Your task to perform on an android device: uninstall "Spotify: Music and Podcasts" Image 0: 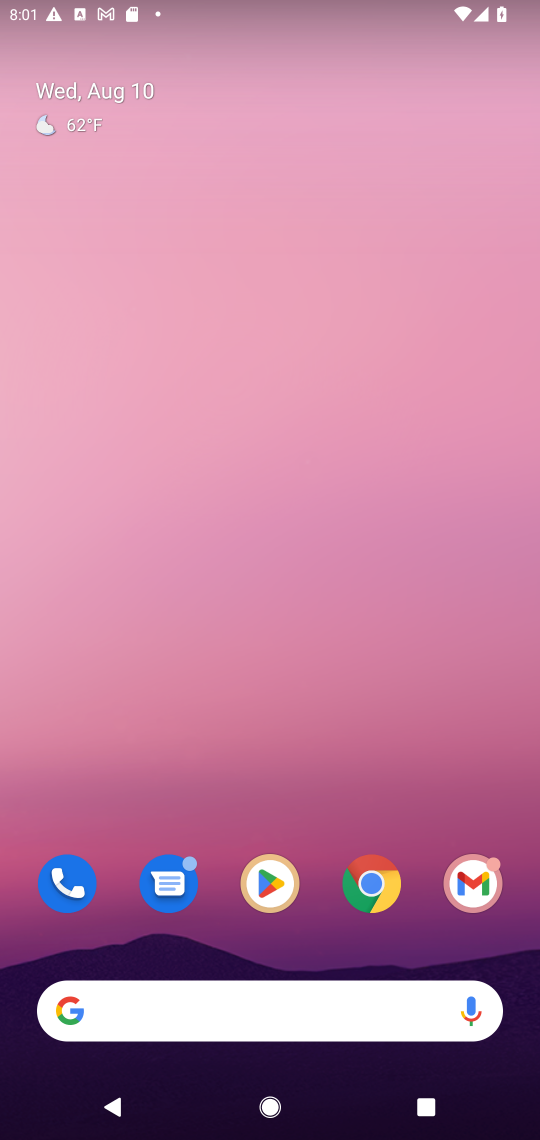
Step 0: click (259, 881)
Your task to perform on an android device: uninstall "Spotify: Music and Podcasts" Image 1: 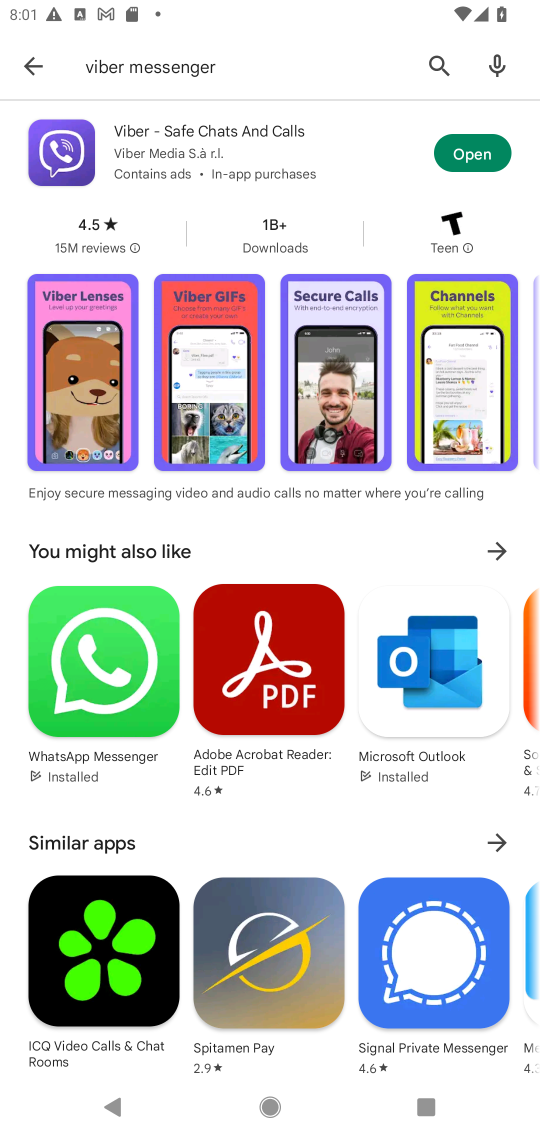
Step 1: click (442, 72)
Your task to perform on an android device: uninstall "Spotify: Music and Podcasts" Image 2: 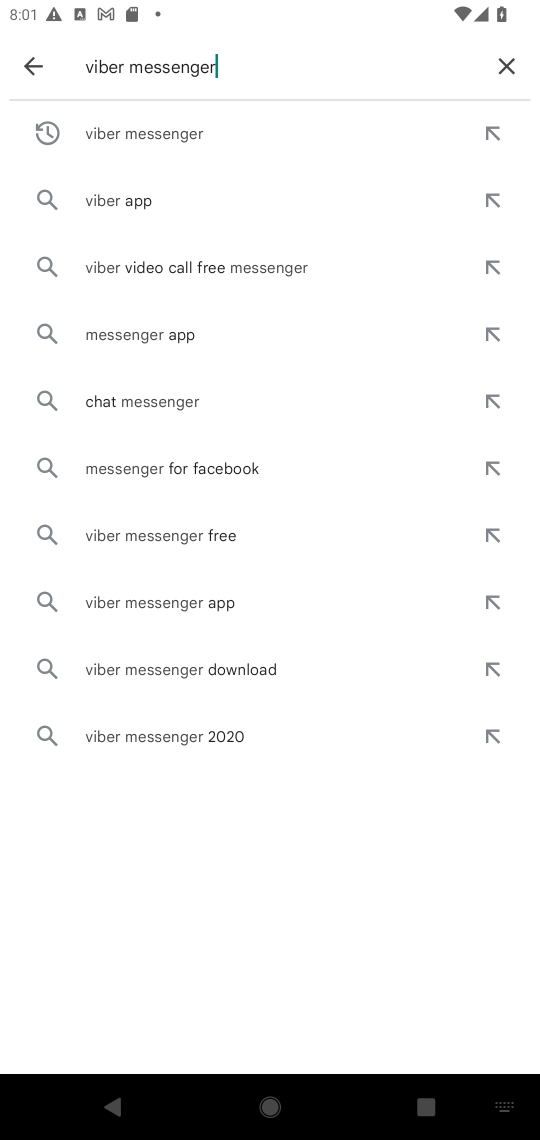
Step 2: click (505, 66)
Your task to perform on an android device: uninstall "Spotify: Music and Podcasts" Image 3: 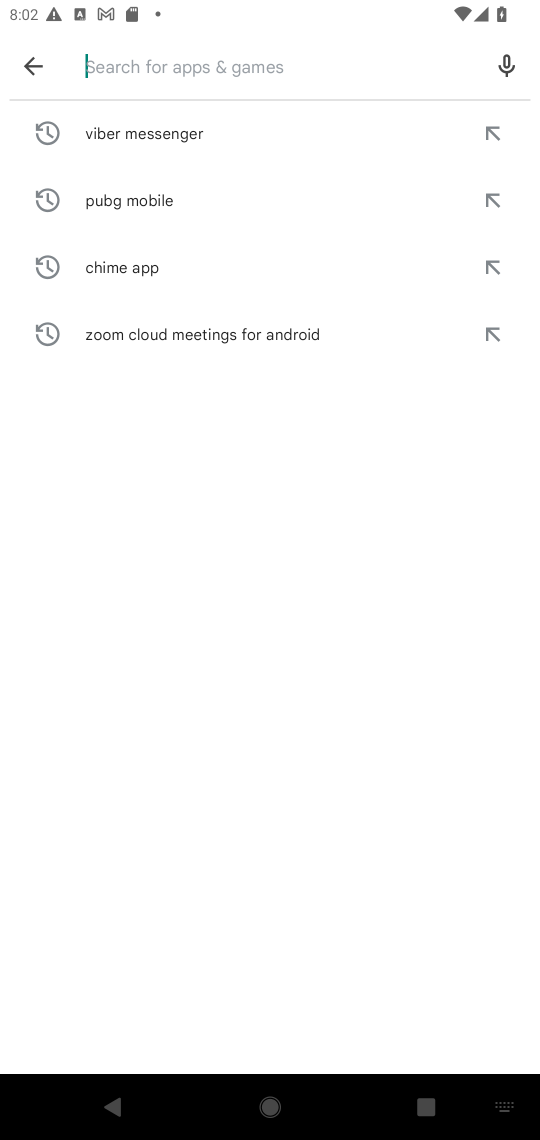
Step 3: type "Spotify: Music and Podcast"
Your task to perform on an android device: uninstall "Spotify: Music and Podcasts" Image 4: 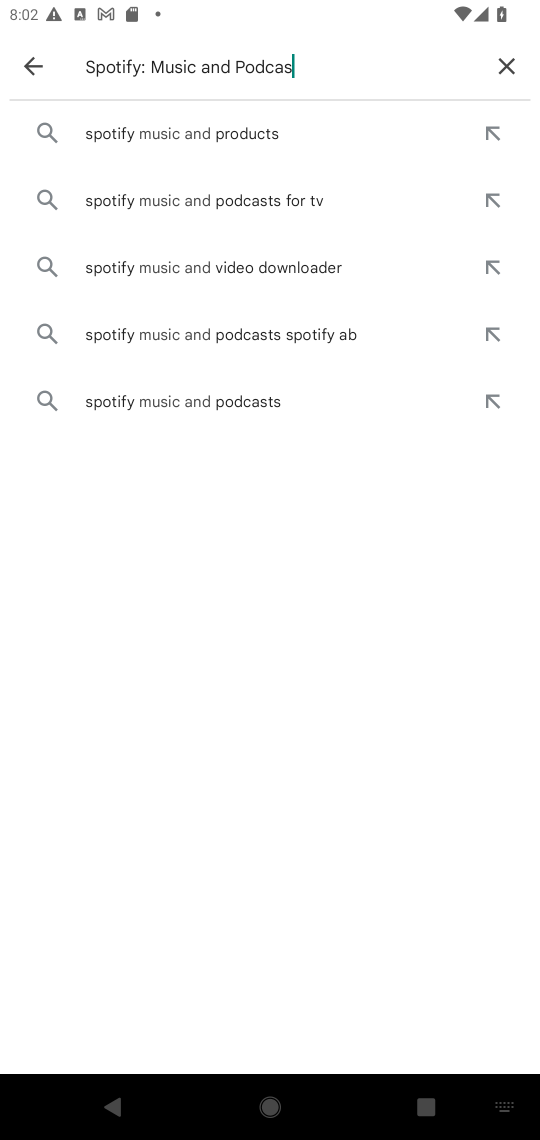
Step 4: type ""
Your task to perform on an android device: uninstall "Spotify: Music and Podcasts" Image 5: 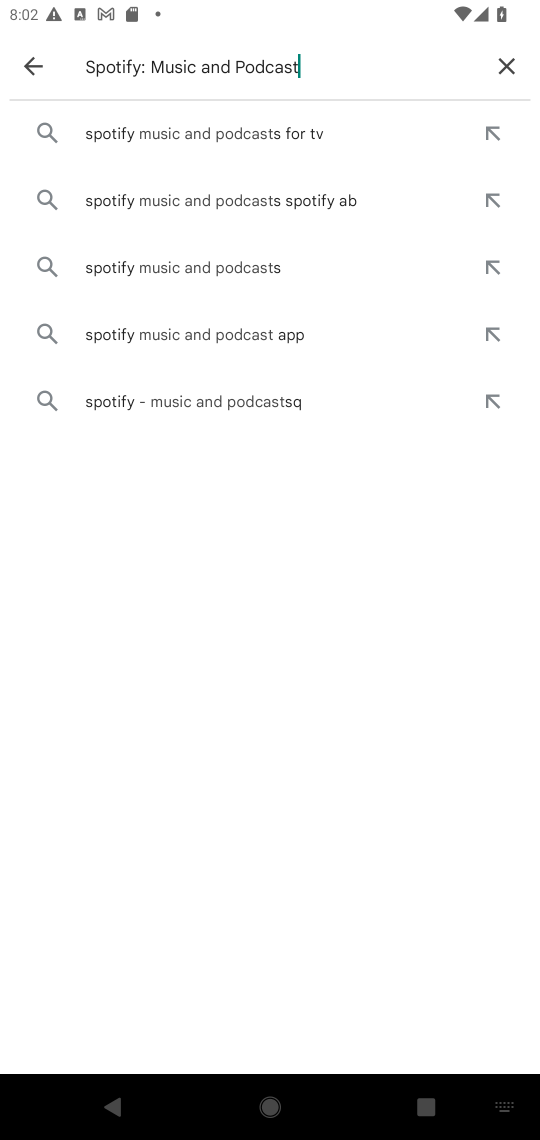
Step 5: click (263, 142)
Your task to perform on an android device: uninstall "Spotify: Music and Podcasts" Image 6: 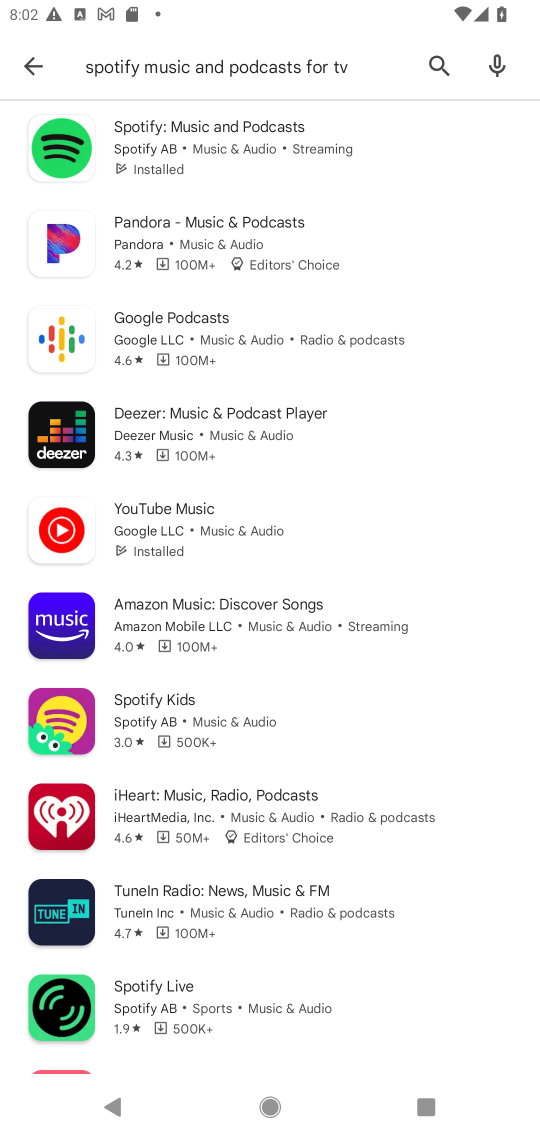
Step 6: click (263, 142)
Your task to perform on an android device: uninstall "Spotify: Music and Podcasts" Image 7: 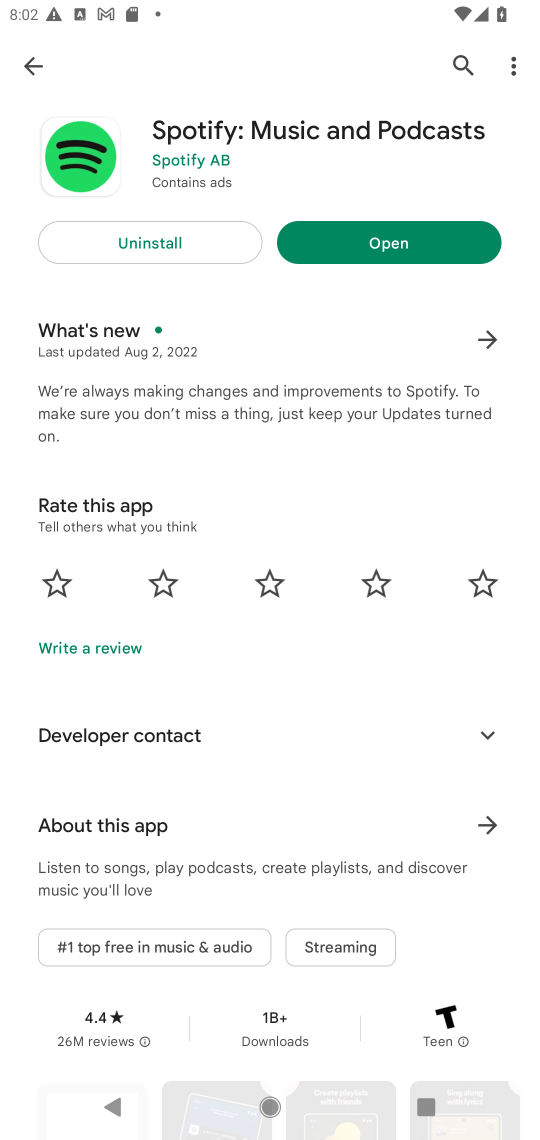
Step 7: click (232, 237)
Your task to perform on an android device: uninstall "Spotify: Music and Podcasts" Image 8: 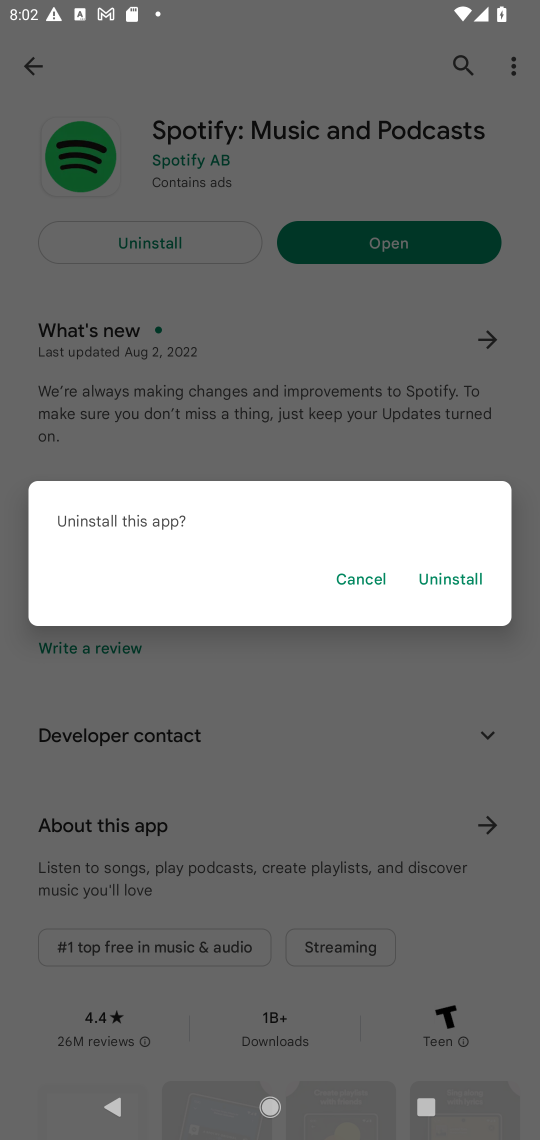
Step 8: click (446, 572)
Your task to perform on an android device: uninstall "Spotify: Music and Podcasts" Image 9: 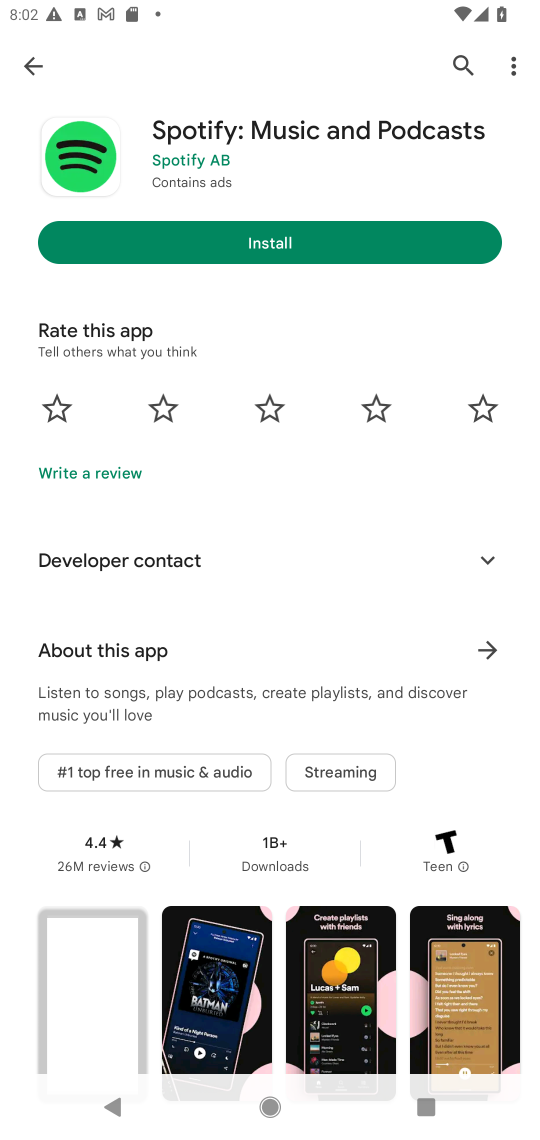
Step 9: task complete